Your task to perform on an android device: turn on location history Image 0: 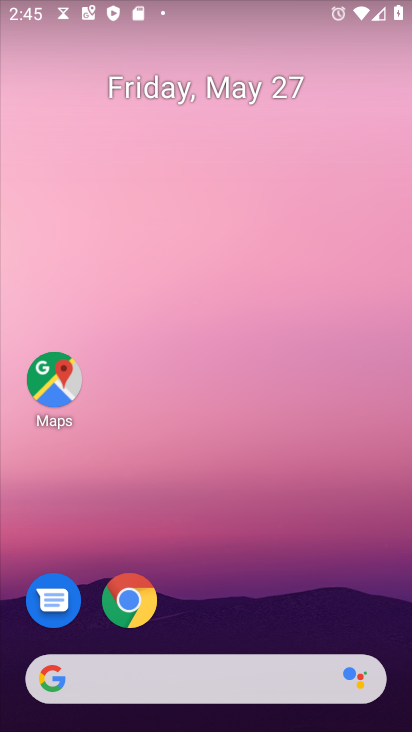
Step 0: drag from (271, 513) to (215, 68)
Your task to perform on an android device: turn on location history Image 1: 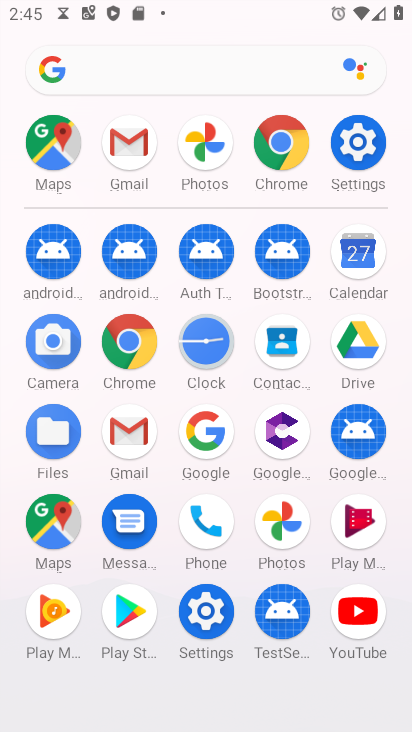
Step 1: click (206, 611)
Your task to perform on an android device: turn on location history Image 2: 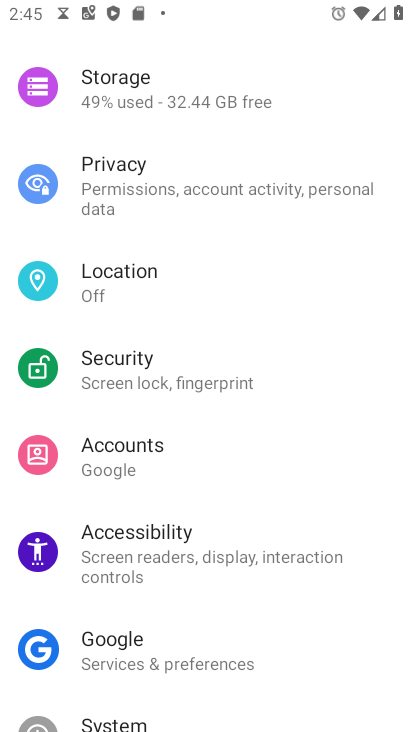
Step 2: click (160, 293)
Your task to perform on an android device: turn on location history Image 3: 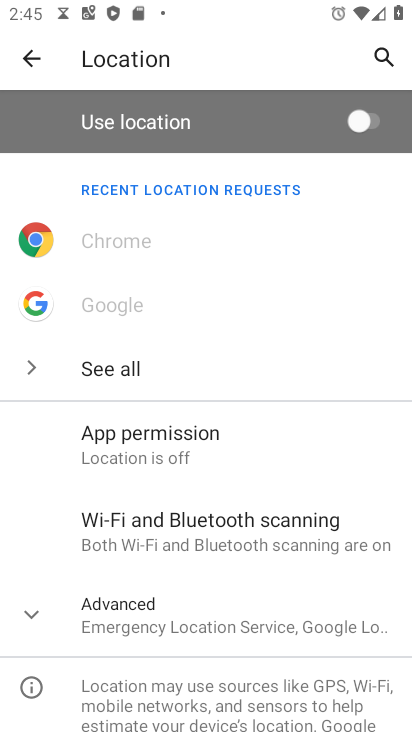
Step 3: click (136, 623)
Your task to perform on an android device: turn on location history Image 4: 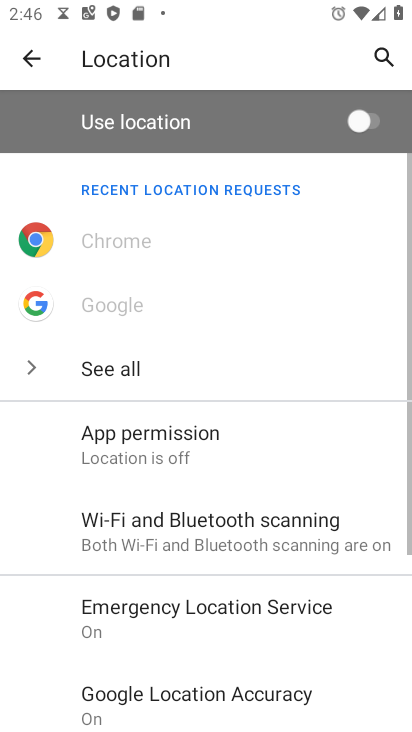
Step 4: drag from (324, 641) to (350, 329)
Your task to perform on an android device: turn on location history Image 5: 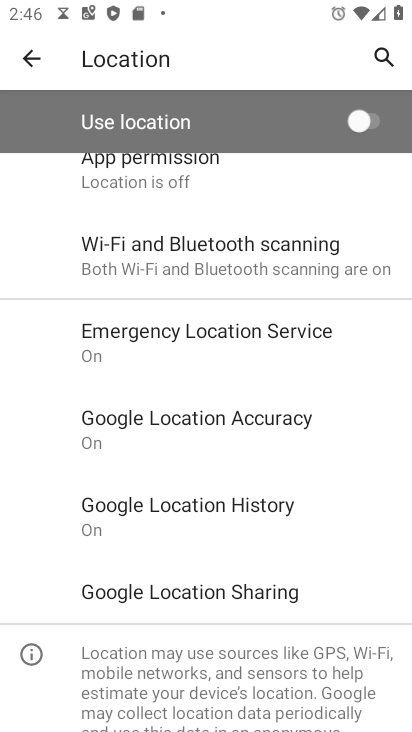
Step 5: click (240, 501)
Your task to perform on an android device: turn on location history Image 6: 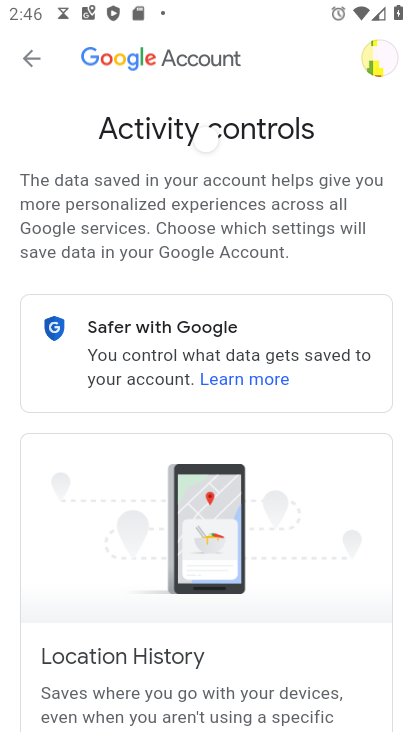
Step 6: task complete